Your task to perform on an android device: Show me productivity apps on the Play Store Image 0: 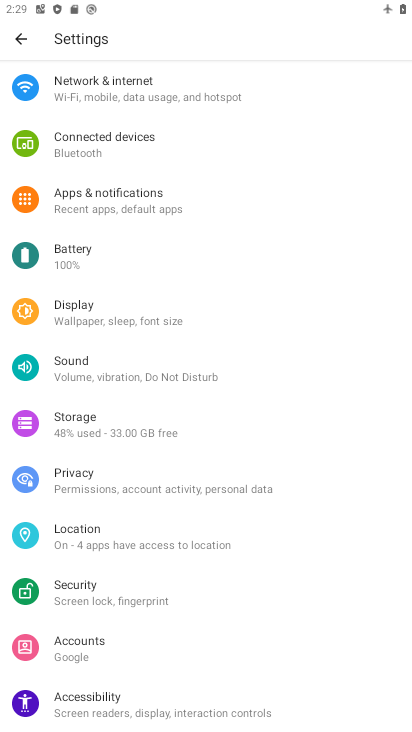
Step 0: press home button
Your task to perform on an android device: Show me productivity apps on the Play Store Image 1: 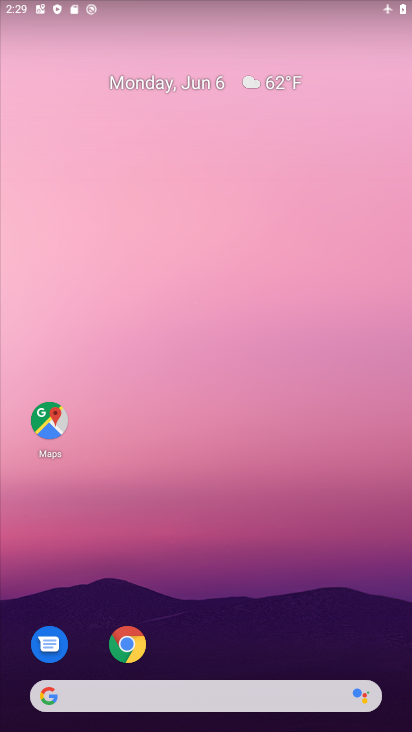
Step 1: drag from (193, 638) to (203, 36)
Your task to perform on an android device: Show me productivity apps on the Play Store Image 2: 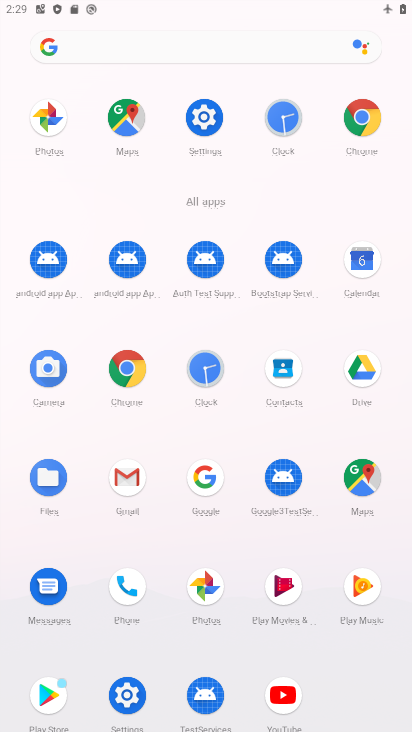
Step 2: click (50, 689)
Your task to perform on an android device: Show me productivity apps on the Play Store Image 3: 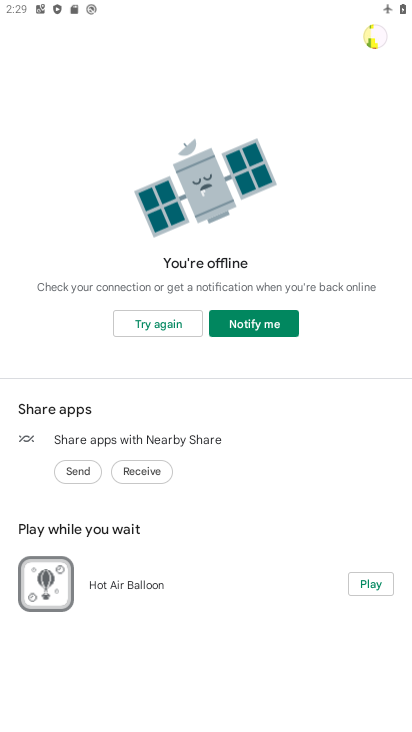
Step 3: click (173, 326)
Your task to perform on an android device: Show me productivity apps on the Play Store Image 4: 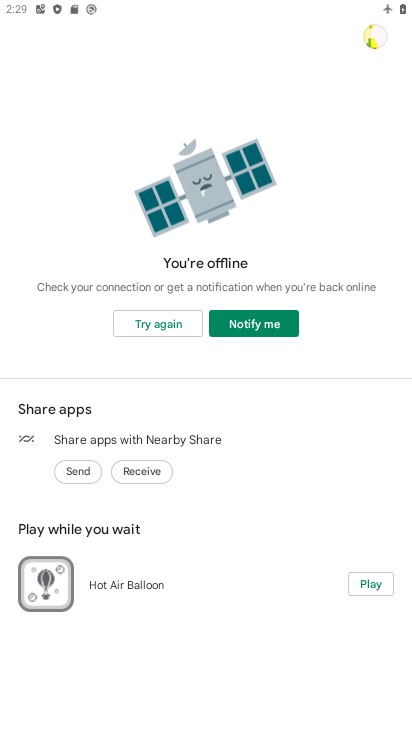
Step 4: click (173, 325)
Your task to perform on an android device: Show me productivity apps on the Play Store Image 5: 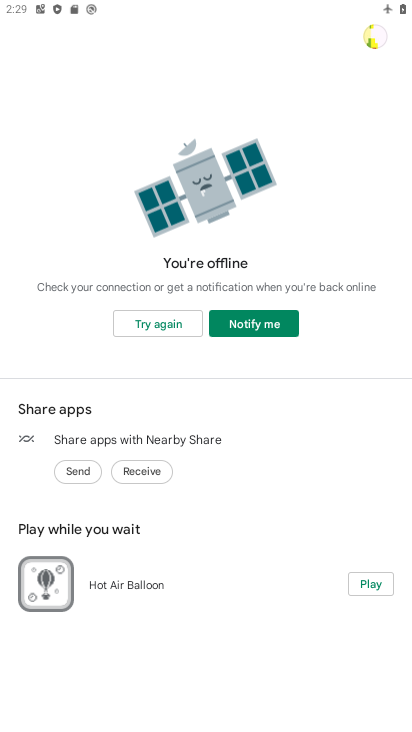
Step 5: task complete